Your task to perform on an android device: When is my next meeting? Image 0: 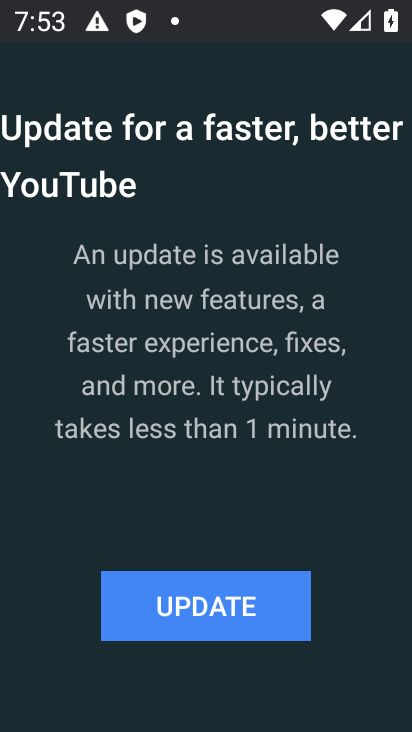
Step 0: press home button
Your task to perform on an android device: When is my next meeting? Image 1: 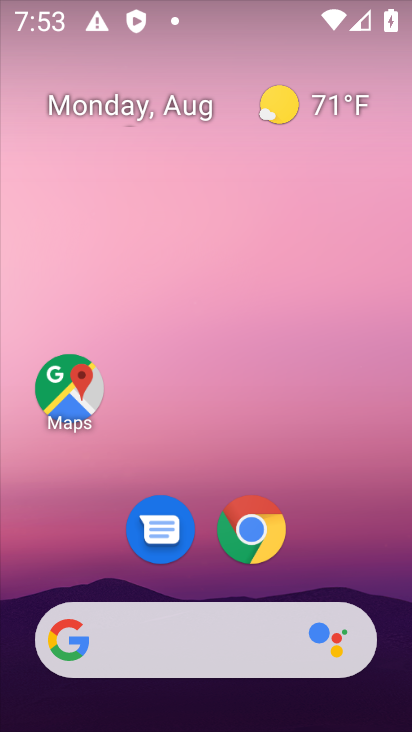
Step 1: drag from (289, 522) to (191, 46)
Your task to perform on an android device: When is my next meeting? Image 2: 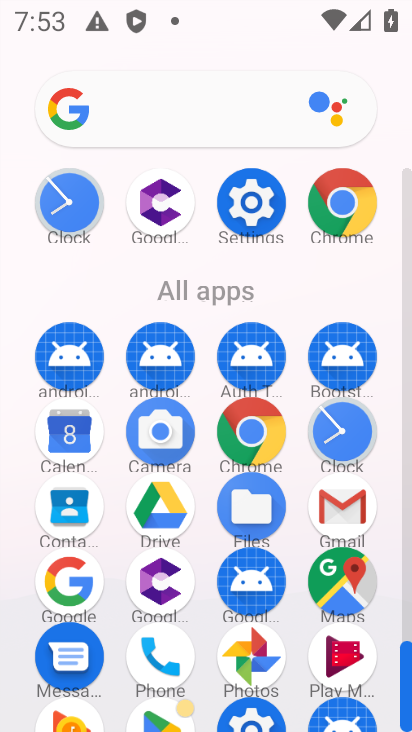
Step 2: click (63, 446)
Your task to perform on an android device: When is my next meeting? Image 3: 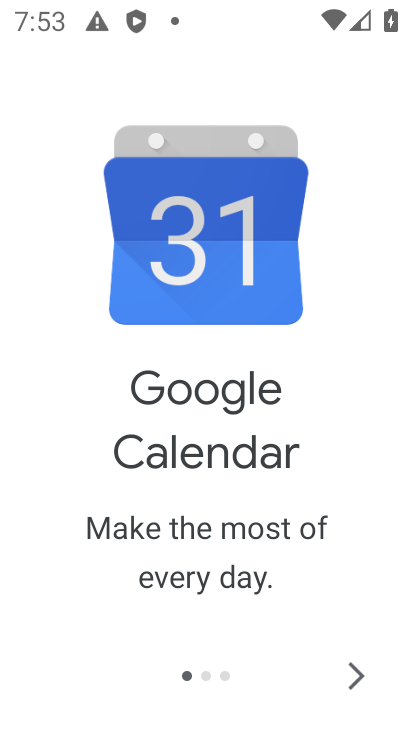
Step 3: click (358, 670)
Your task to perform on an android device: When is my next meeting? Image 4: 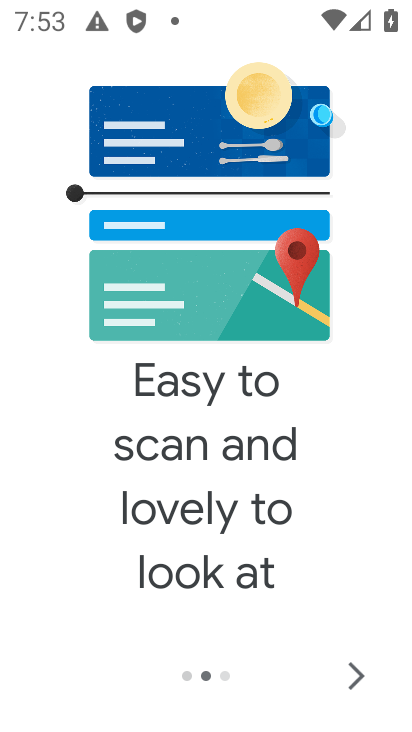
Step 4: click (360, 668)
Your task to perform on an android device: When is my next meeting? Image 5: 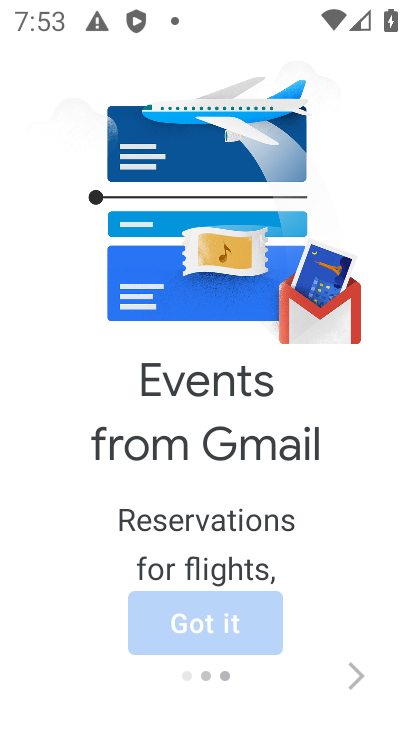
Step 5: click (359, 663)
Your task to perform on an android device: When is my next meeting? Image 6: 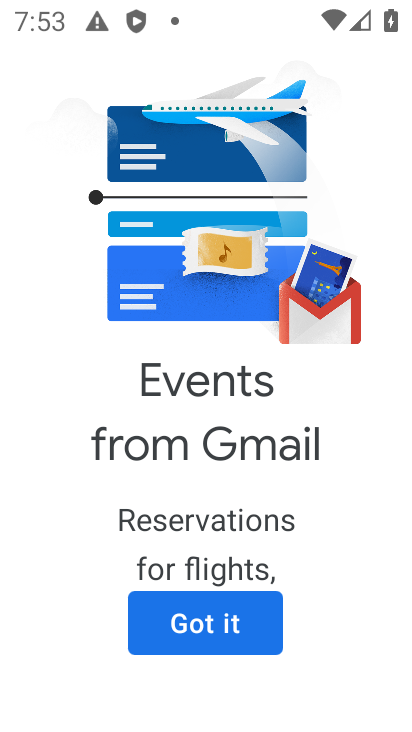
Step 6: click (358, 658)
Your task to perform on an android device: When is my next meeting? Image 7: 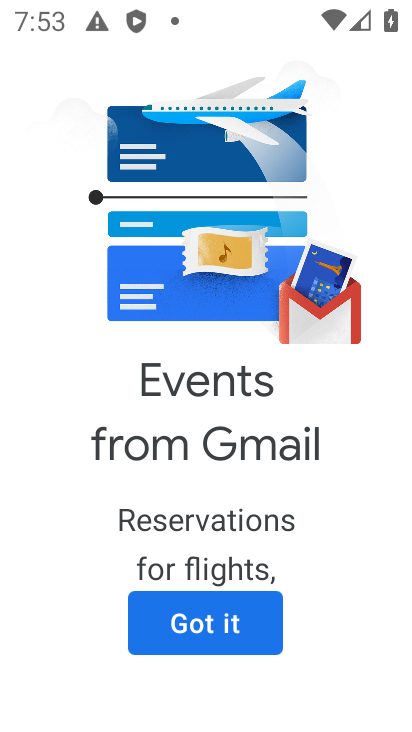
Step 7: click (263, 625)
Your task to perform on an android device: When is my next meeting? Image 8: 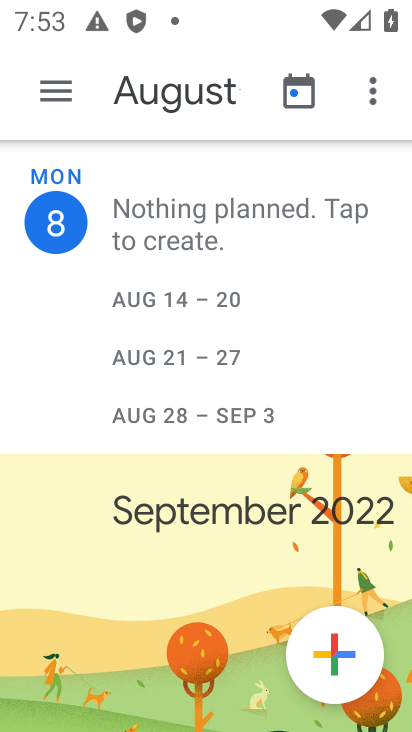
Step 8: click (302, 106)
Your task to perform on an android device: When is my next meeting? Image 9: 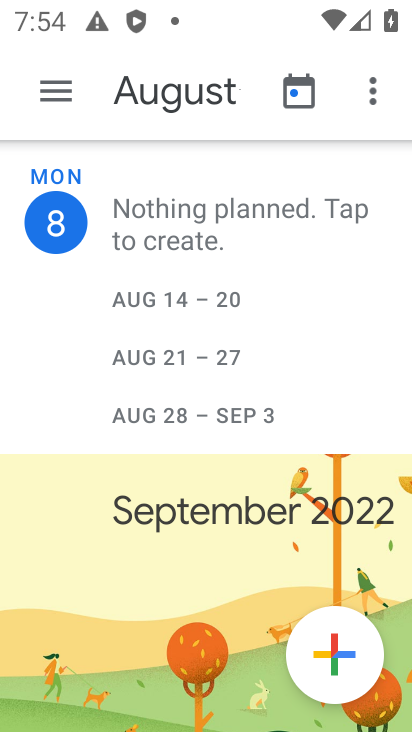
Step 9: click (51, 86)
Your task to perform on an android device: When is my next meeting? Image 10: 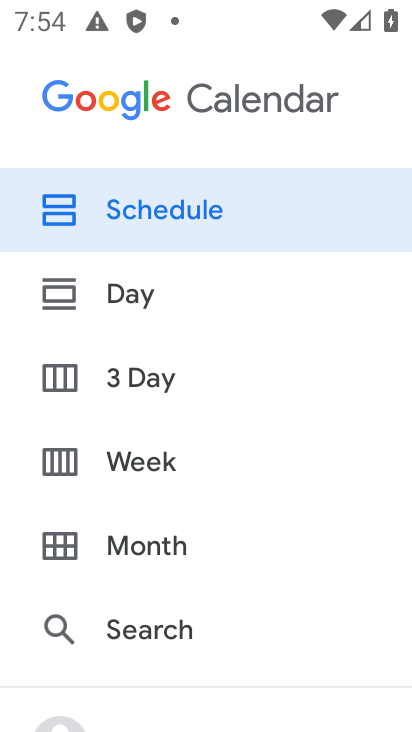
Step 10: click (198, 475)
Your task to perform on an android device: When is my next meeting? Image 11: 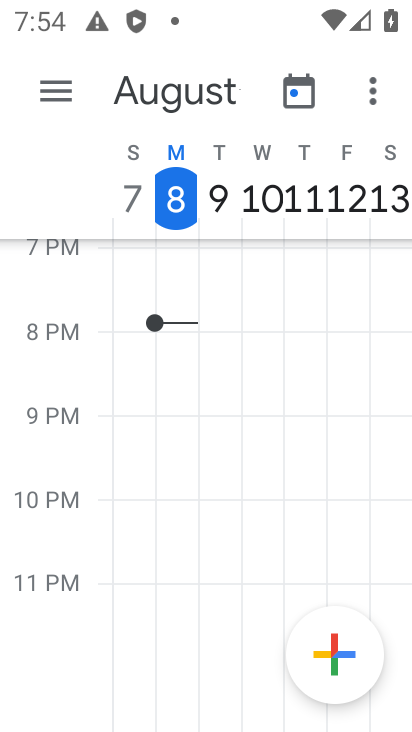
Step 11: task complete